Your task to perform on an android device: Go to Amazon Image 0: 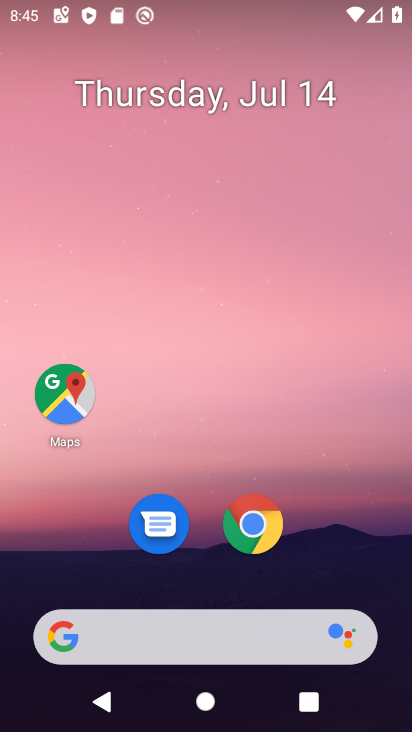
Step 0: click (253, 521)
Your task to perform on an android device: Go to Amazon Image 1: 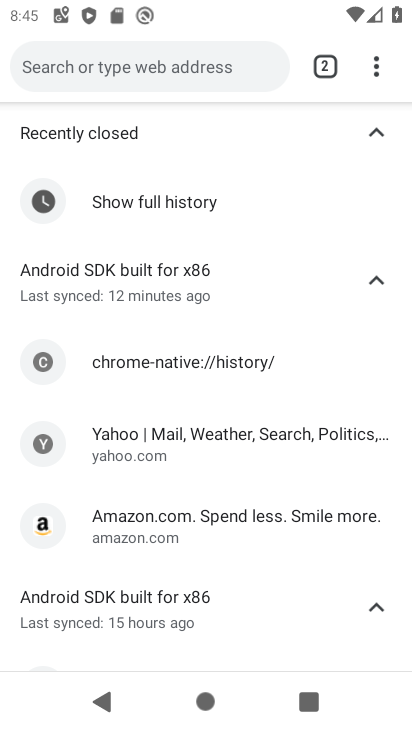
Step 1: task complete